Your task to perform on an android device: Go to display settings Image 0: 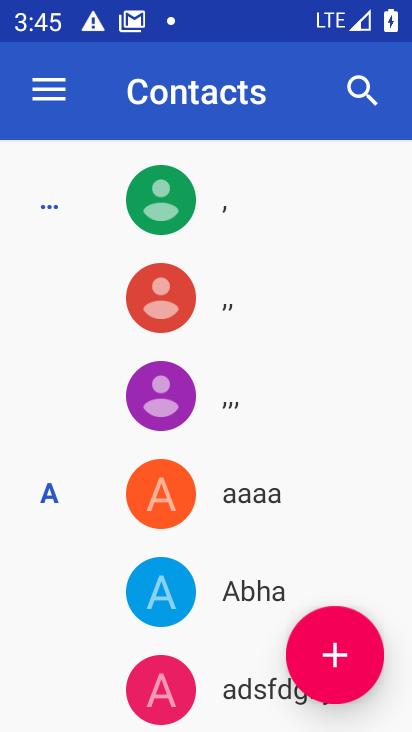
Step 0: press home button
Your task to perform on an android device: Go to display settings Image 1: 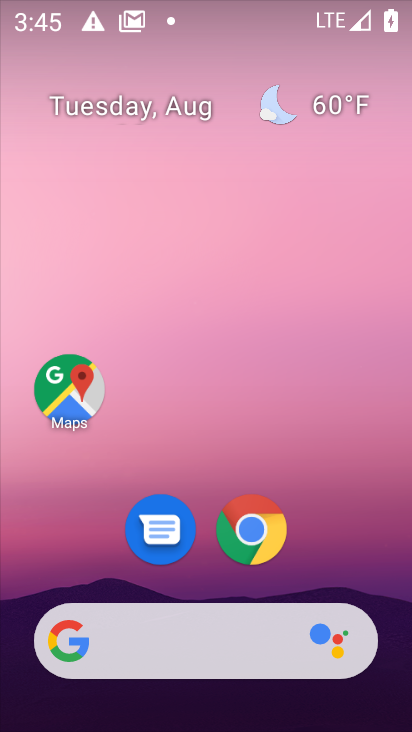
Step 1: drag from (358, 500) to (331, 0)
Your task to perform on an android device: Go to display settings Image 2: 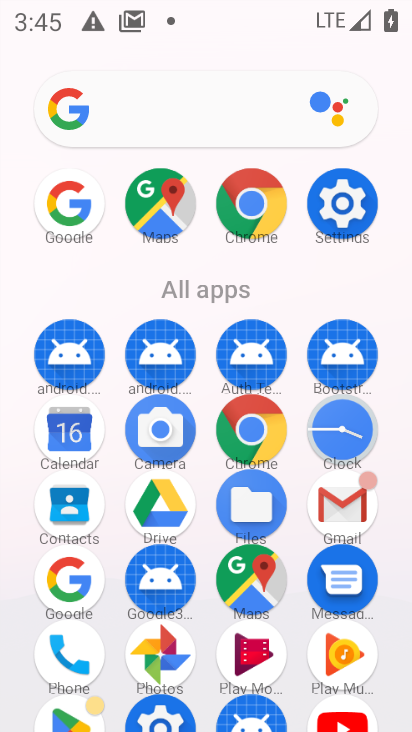
Step 2: click (353, 215)
Your task to perform on an android device: Go to display settings Image 3: 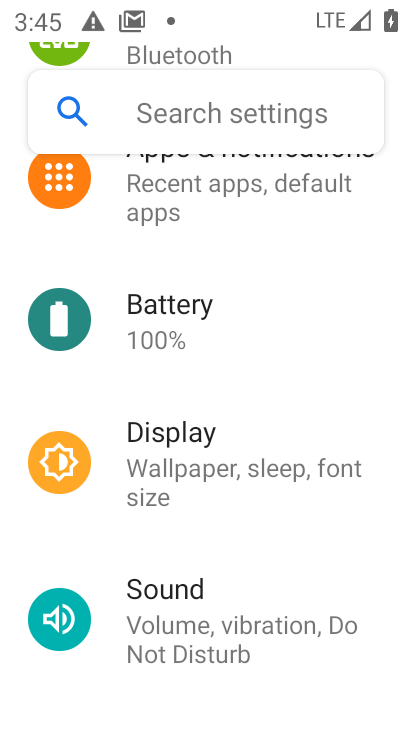
Step 3: click (216, 454)
Your task to perform on an android device: Go to display settings Image 4: 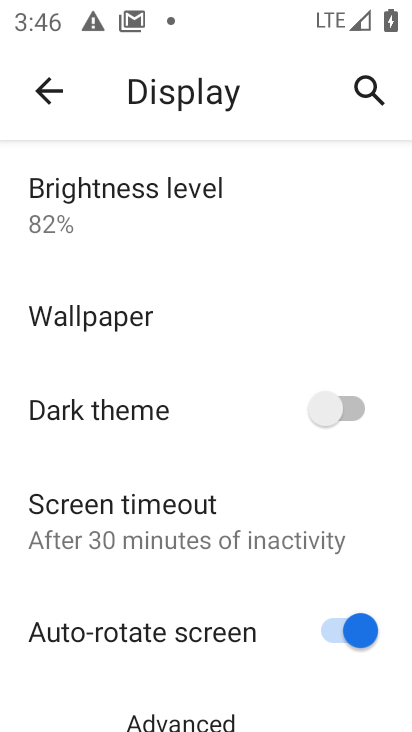
Step 4: task complete